Your task to perform on an android device: Check the news Image 0: 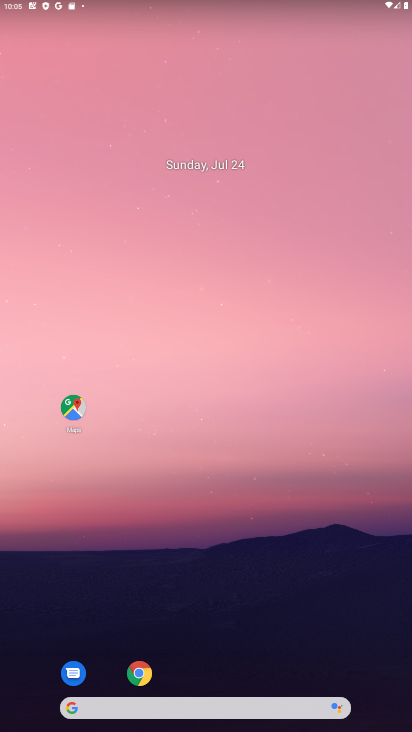
Step 0: click (120, 707)
Your task to perform on an android device: Check the news Image 1: 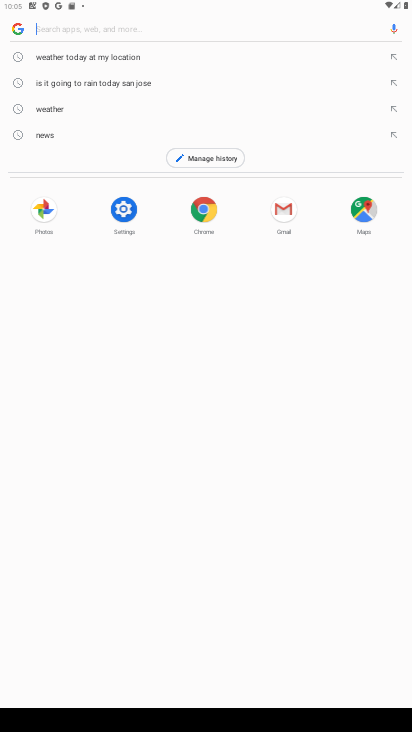
Step 1: click (46, 135)
Your task to perform on an android device: Check the news Image 2: 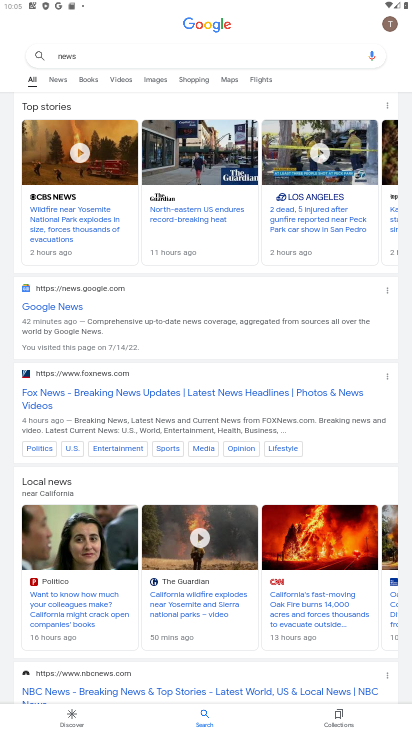
Step 2: task complete